Your task to perform on an android device: Go to Reddit.com Image 0: 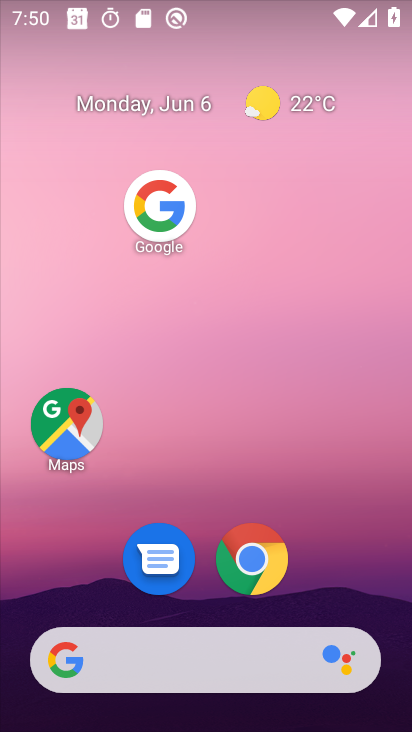
Step 0: drag from (223, 516) to (242, 194)
Your task to perform on an android device: Go to Reddit.com Image 1: 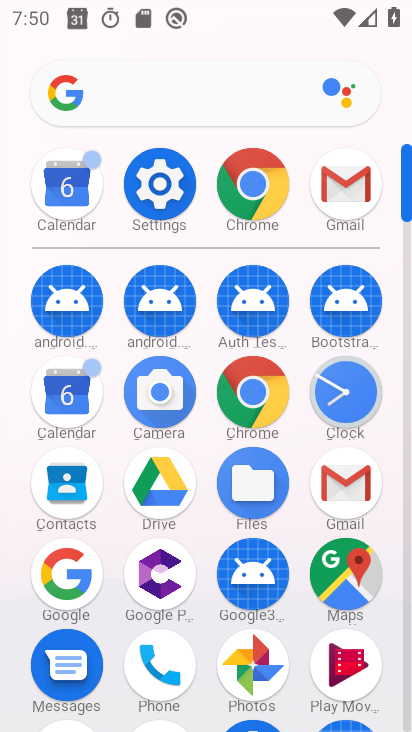
Step 1: click (251, 184)
Your task to perform on an android device: Go to Reddit.com Image 2: 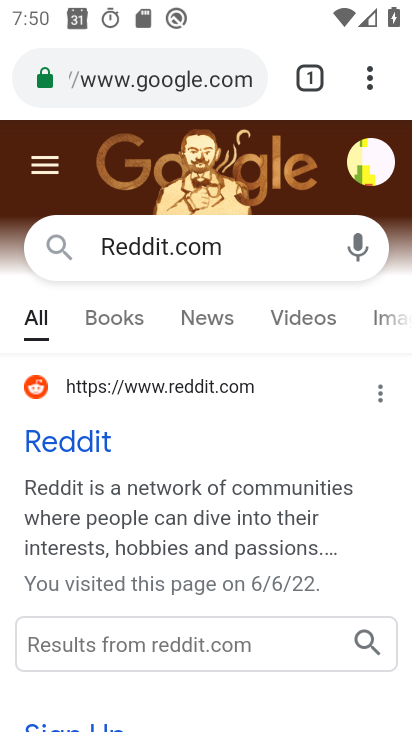
Step 2: click (143, 87)
Your task to perform on an android device: Go to Reddit.com Image 3: 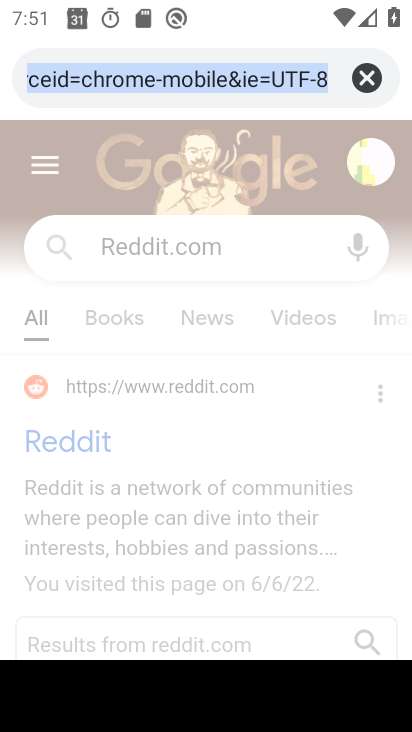
Step 3: type "Reddit.com"
Your task to perform on an android device: Go to Reddit.com Image 4: 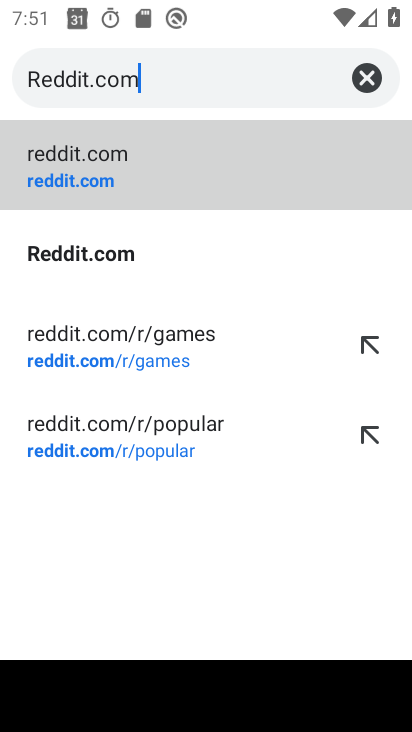
Step 4: click (95, 182)
Your task to perform on an android device: Go to Reddit.com Image 5: 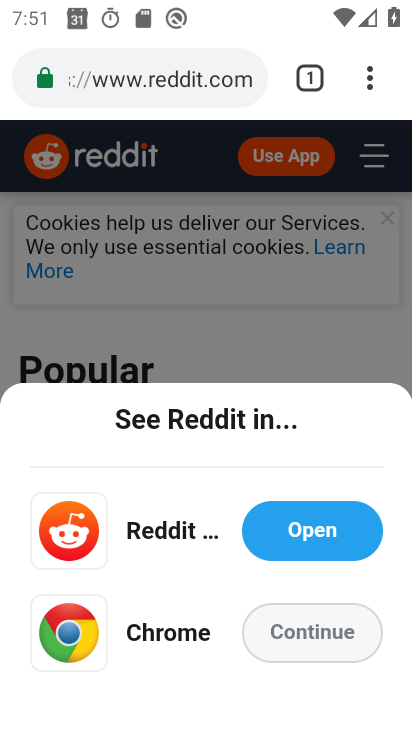
Step 5: task complete